Your task to perform on an android device: Go to Reddit.com Image 0: 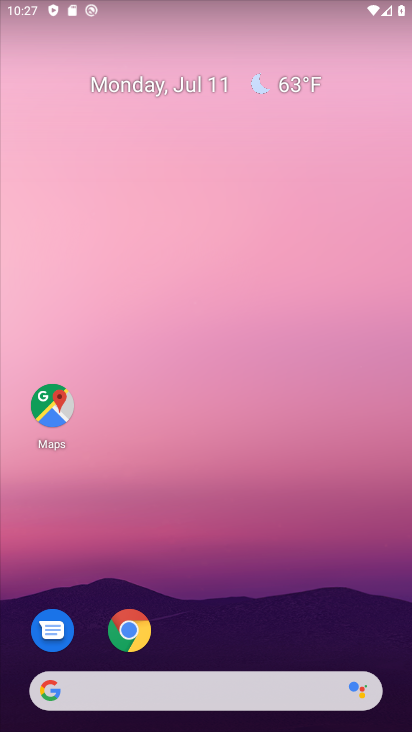
Step 0: click (130, 628)
Your task to perform on an android device: Go to Reddit.com Image 1: 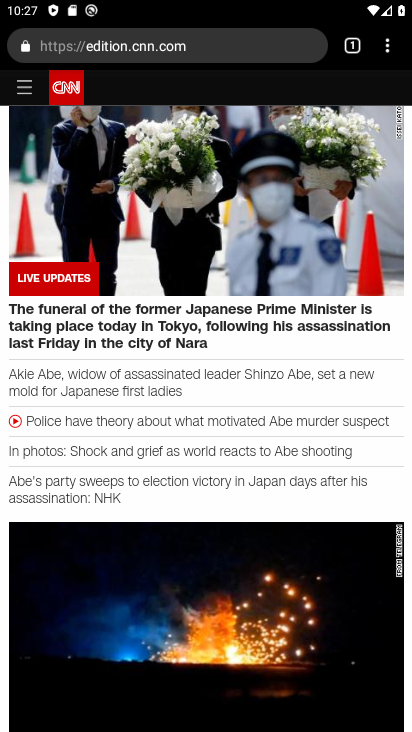
Step 1: click (231, 46)
Your task to perform on an android device: Go to Reddit.com Image 2: 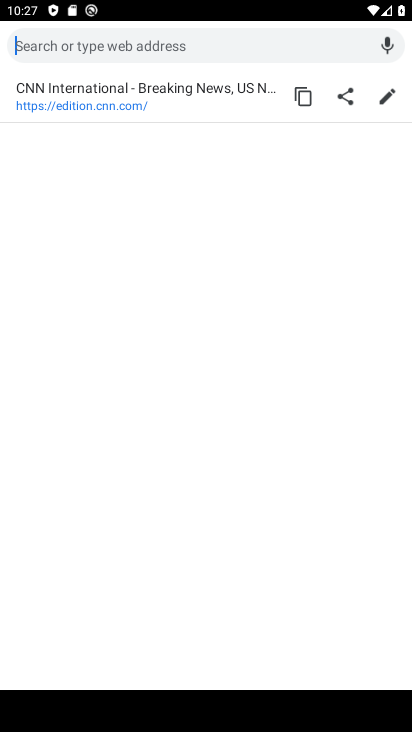
Step 2: type "reddit.com"
Your task to perform on an android device: Go to Reddit.com Image 3: 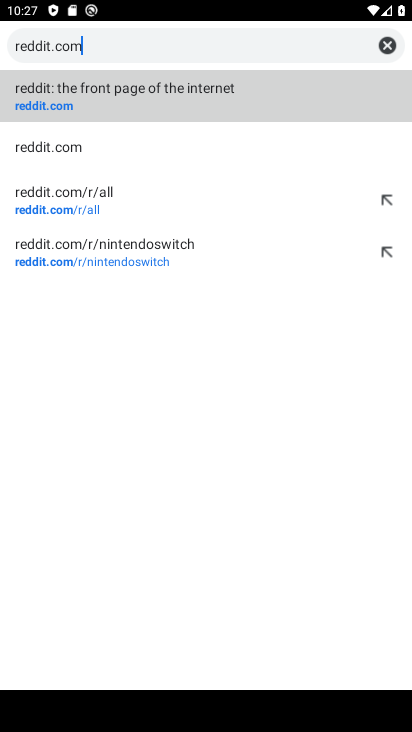
Step 3: click (64, 94)
Your task to perform on an android device: Go to Reddit.com Image 4: 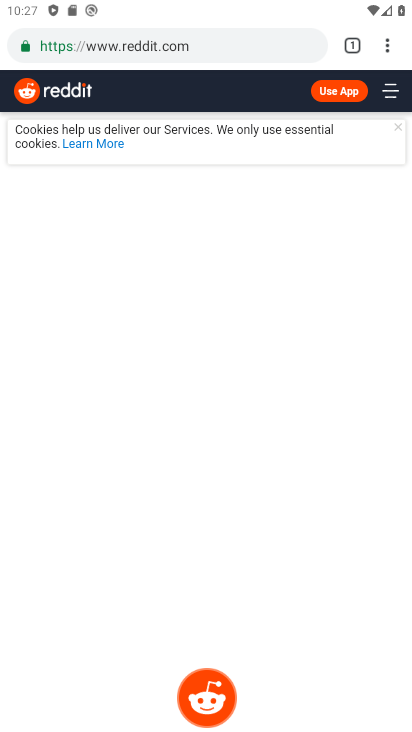
Step 4: task complete